Your task to perform on an android device: clear history in the chrome app Image 0: 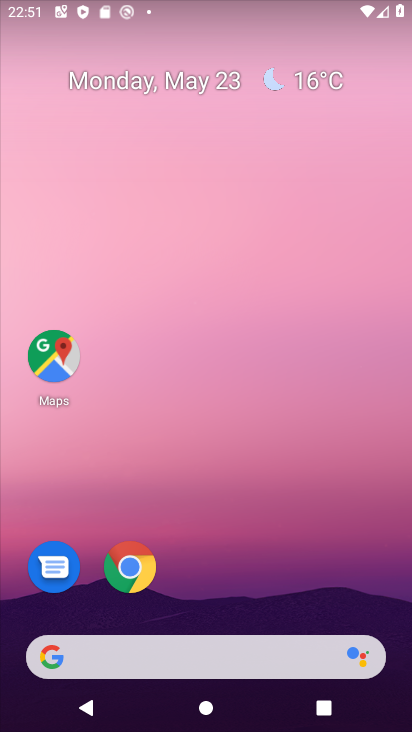
Step 0: click (129, 564)
Your task to perform on an android device: clear history in the chrome app Image 1: 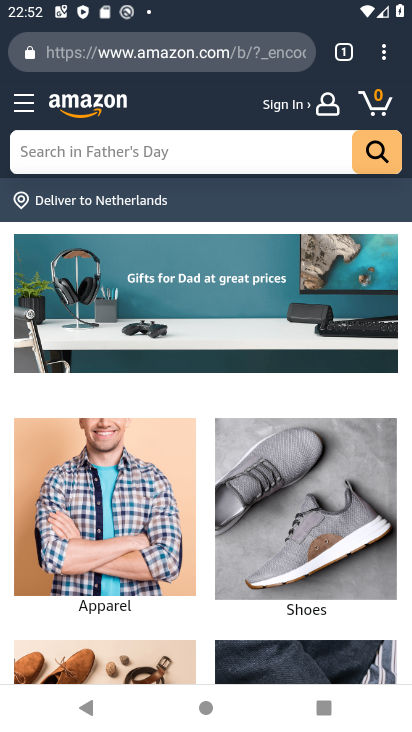
Step 1: click (384, 44)
Your task to perform on an android device: clear history in the chrome app Image 2: 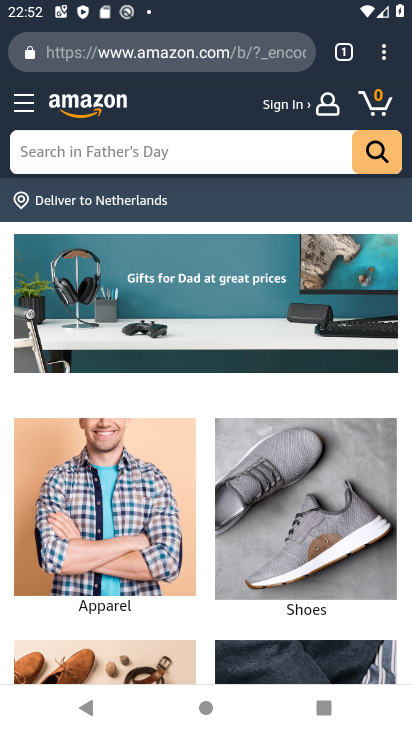
Step 2: click (388, 53)
Your task to perform on an android device: clear history in the chrome app Image 3: 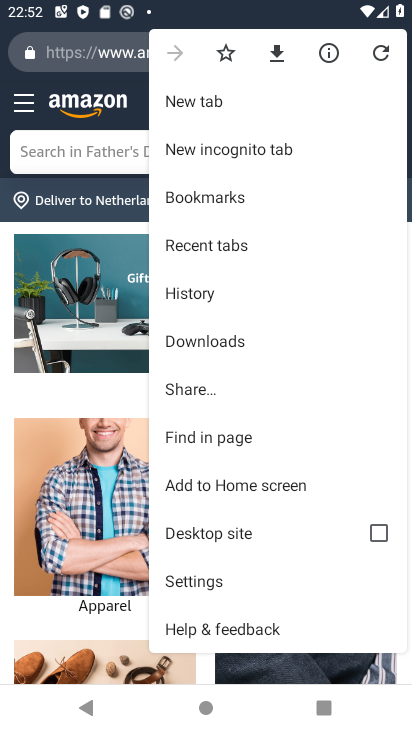
Step 3: click (246, 284)
Your task to perform on an android device: clear history in the chrome app Image 4: 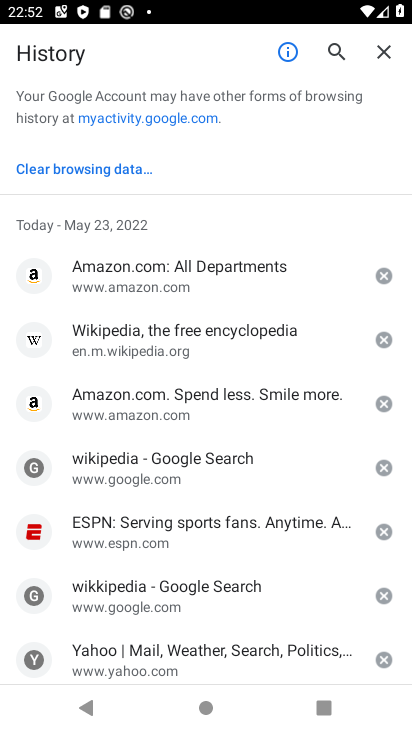
Step 4: click (382, 46)
Your task to perform on an android device: clear history in the chrome app Image 5: 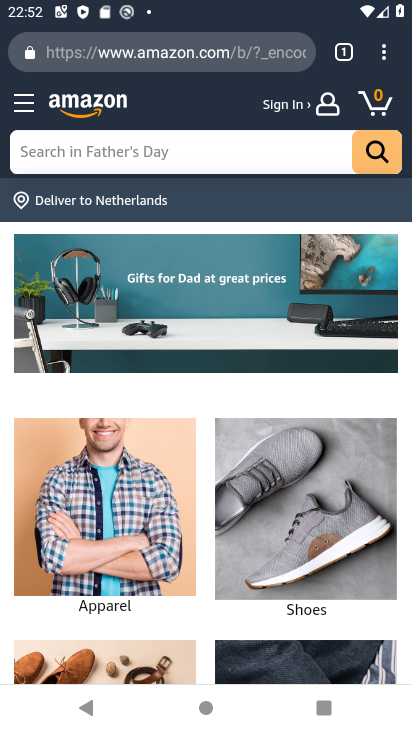
Step 5: click (391, 63)
Your task to perform on an android device: clear history in the chrome app Image 6: 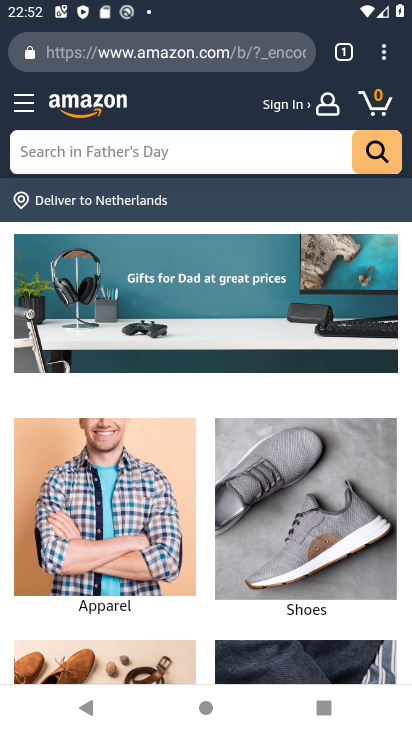
Step 6: click (388, 54)
Your task to perform on an android device: clear history in the chrome app Image 7: 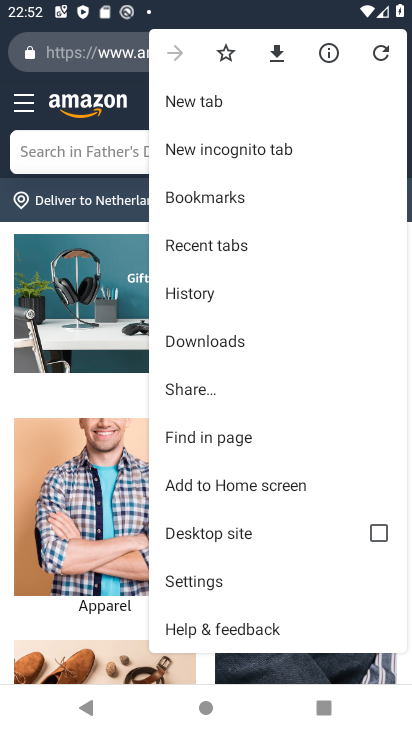
Step 7: click (221, 281)
Your task to perform on an android device: clear history in the chrome app Image 8: 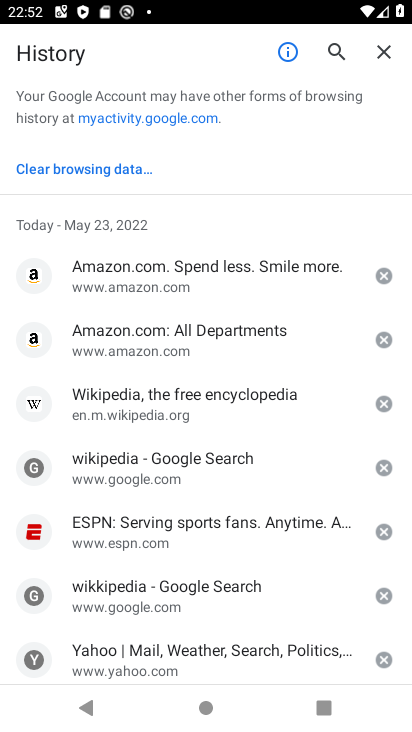
Step 8: click (85, 165)
Your task to perform on an android device: clear history in the chrome app Image 9: 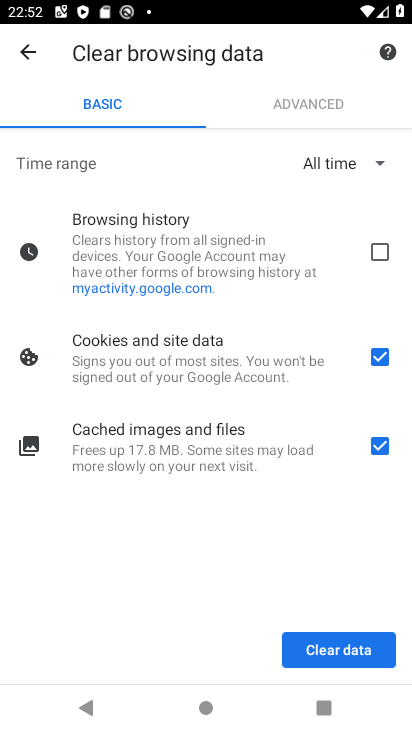
Step 9: click (336, 646)
Your task to perform on an android device: clear history in the chrome app Image 10: 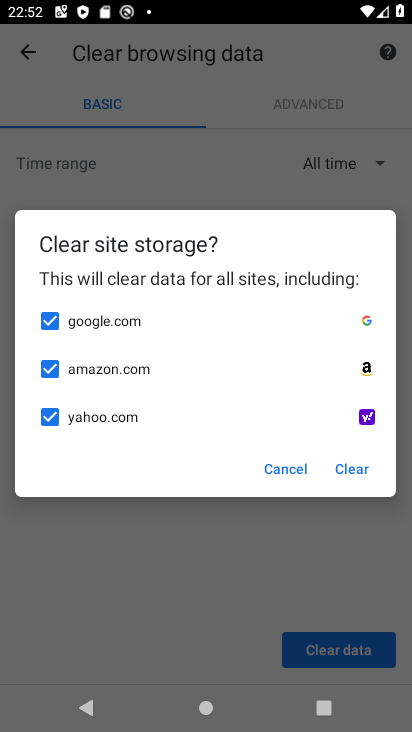
Step 10: click (346, 472)
Your task to perform on an android device: clear history in the chrome app Image 11: 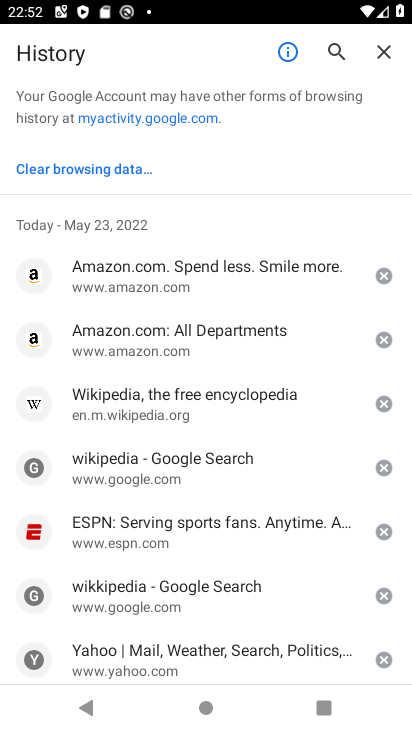
Step 11: click (75, 166)
Your task to perform on an android device: clear history in the chrome app Image 12: 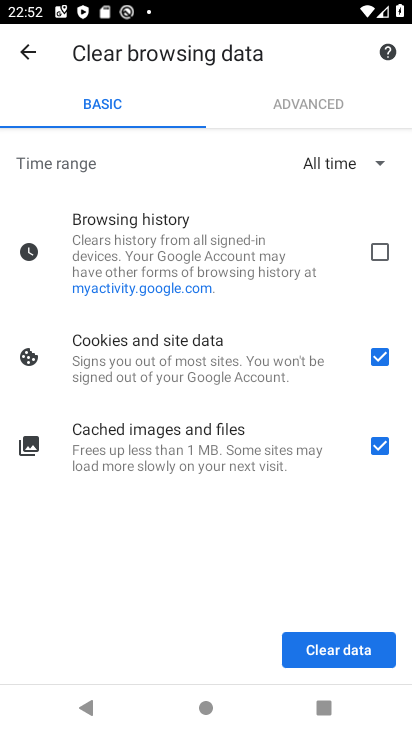
Step 12: click (378, 248)
Your task to perform on an android device: clear history in the chrome app Image 13: 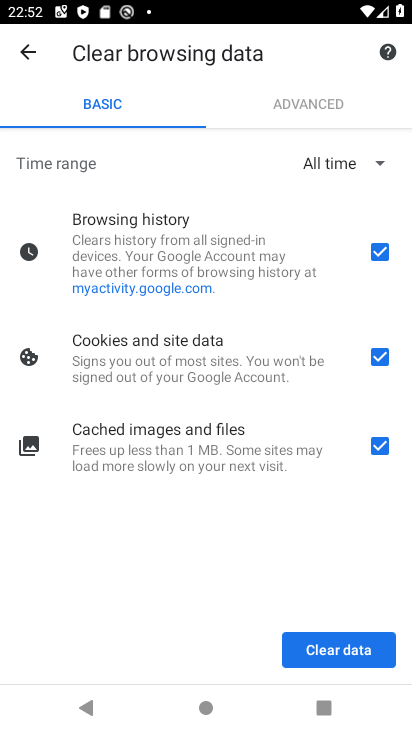
Step 13: click (336, 651)
Your task to perform on an android device: clear history in the chrome app Image 14: 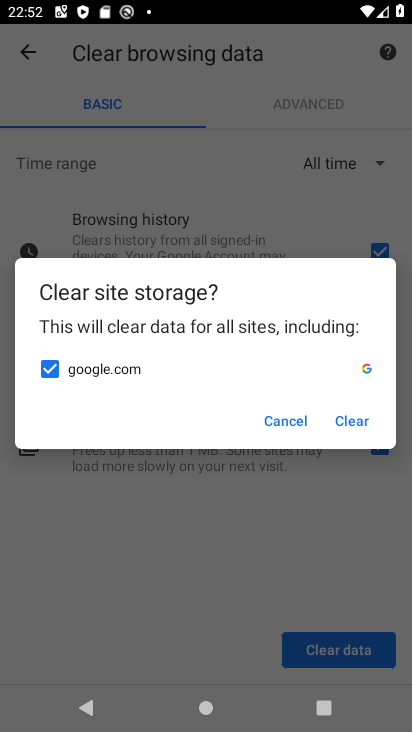
Step 14: click (341, 418)
Your task to perform on an android device: clear history in the chrome app Image 15: 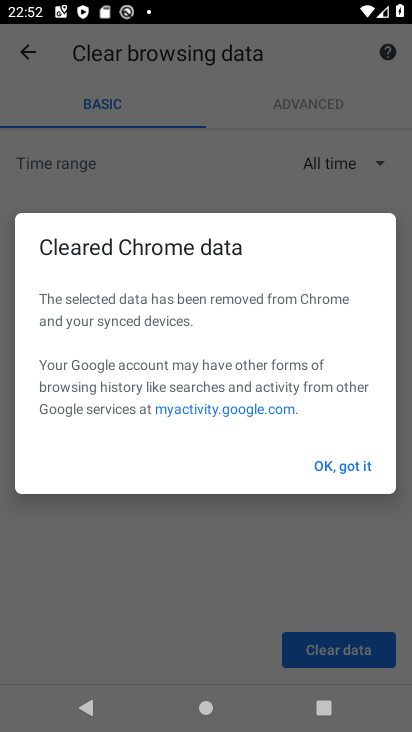
Step 15: click (344, 462)
Your task to perform on an android device: clear history in the chrome app Image 16: 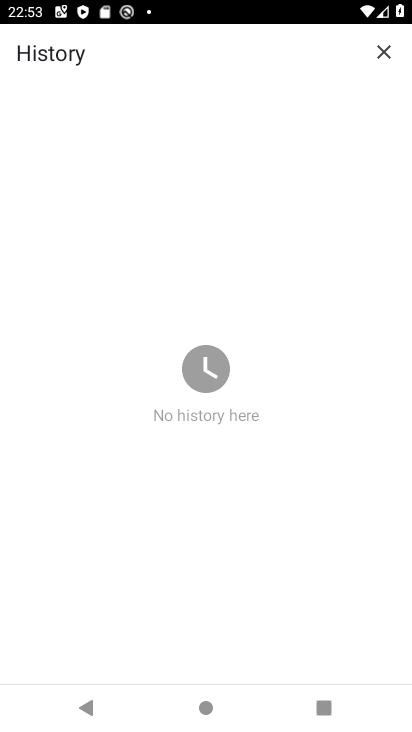
Step 16: task complete